Your task to perform on an android device: Show the shopping cart on amazon. Search for amazon basics triple a on amazon, select the first entry, and add it to the cart. Image 0: 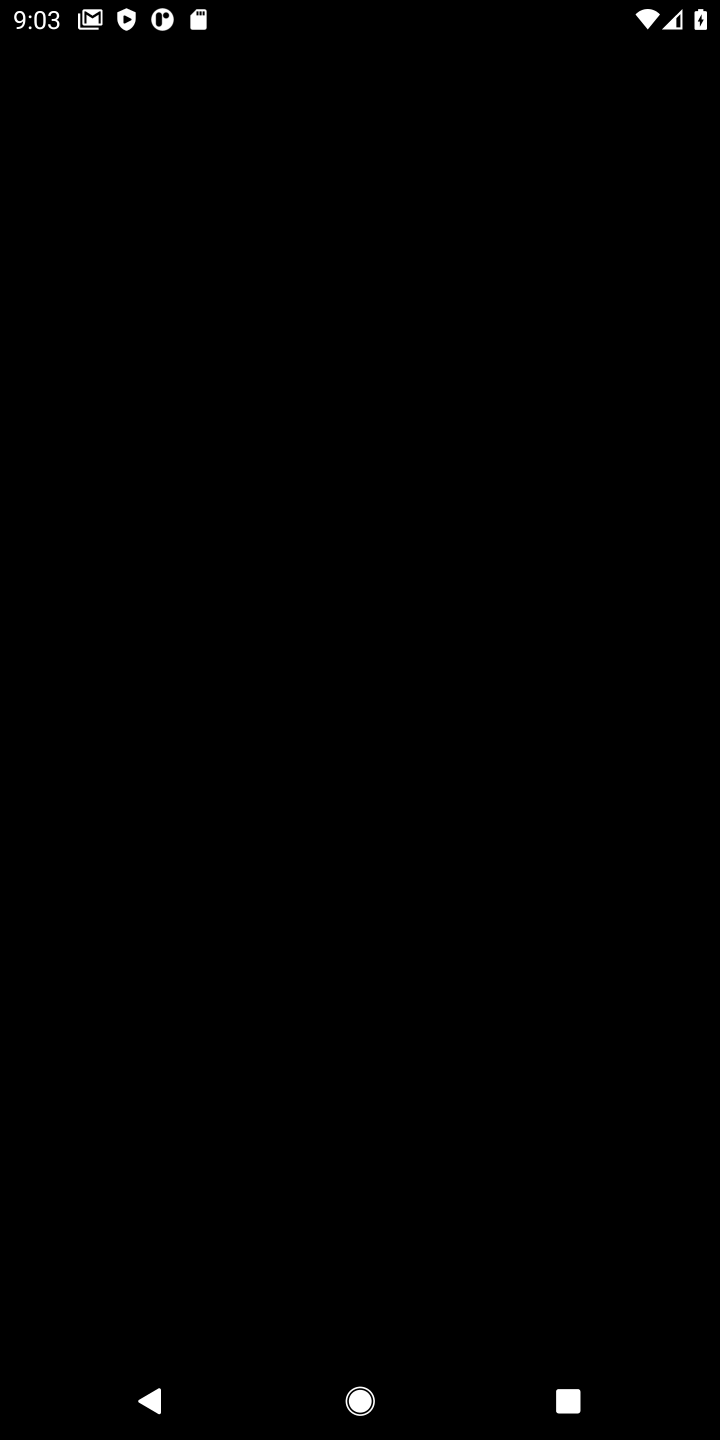
Step 0: press home button
Your task to perform on an android device: Show the shopping cart on amazon. Search for amazon basics triple a on amazon, select the first entry, and add it to the cart. Image 1: 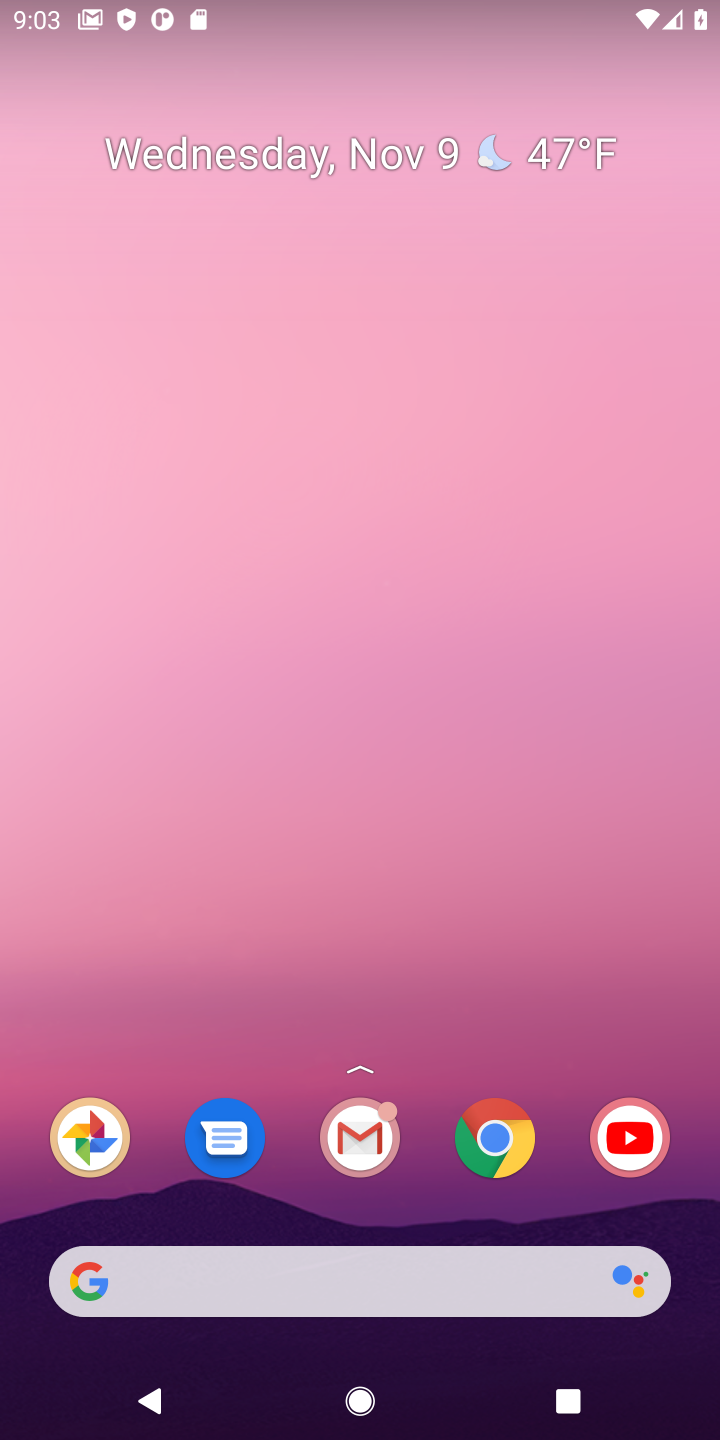
Step 1: drag from (427, 1219) to (374, 99)
Your task to perform on an android device: Show the shopping cart on amazon. Search for amazon basics triple a on amazon, select the first entry, and add it to the cart. Image 2: 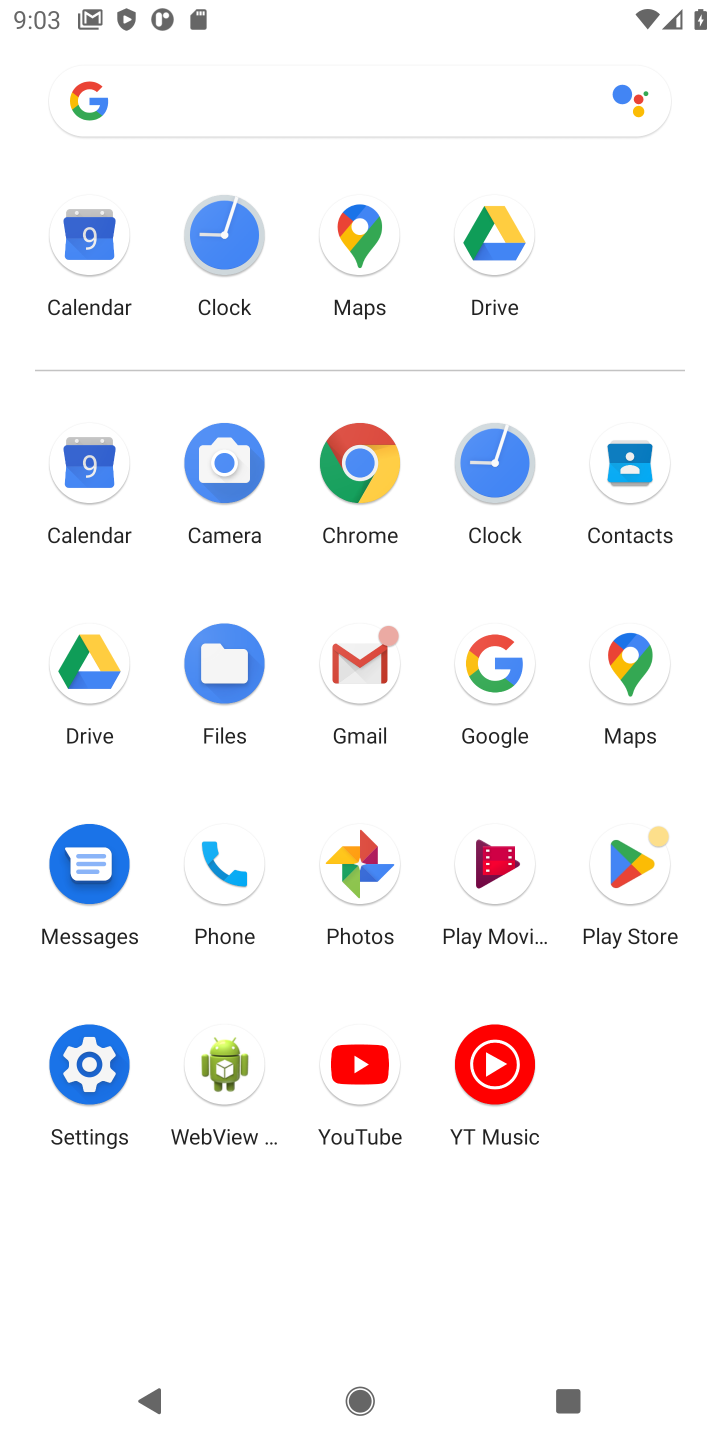
Step 2: click (356, 469)
Your task to perform on an android device: Show the shopping cart on amazon. Search for amazon basics triple a on amazon, select the first entry, and add it to the cart. Image 3: 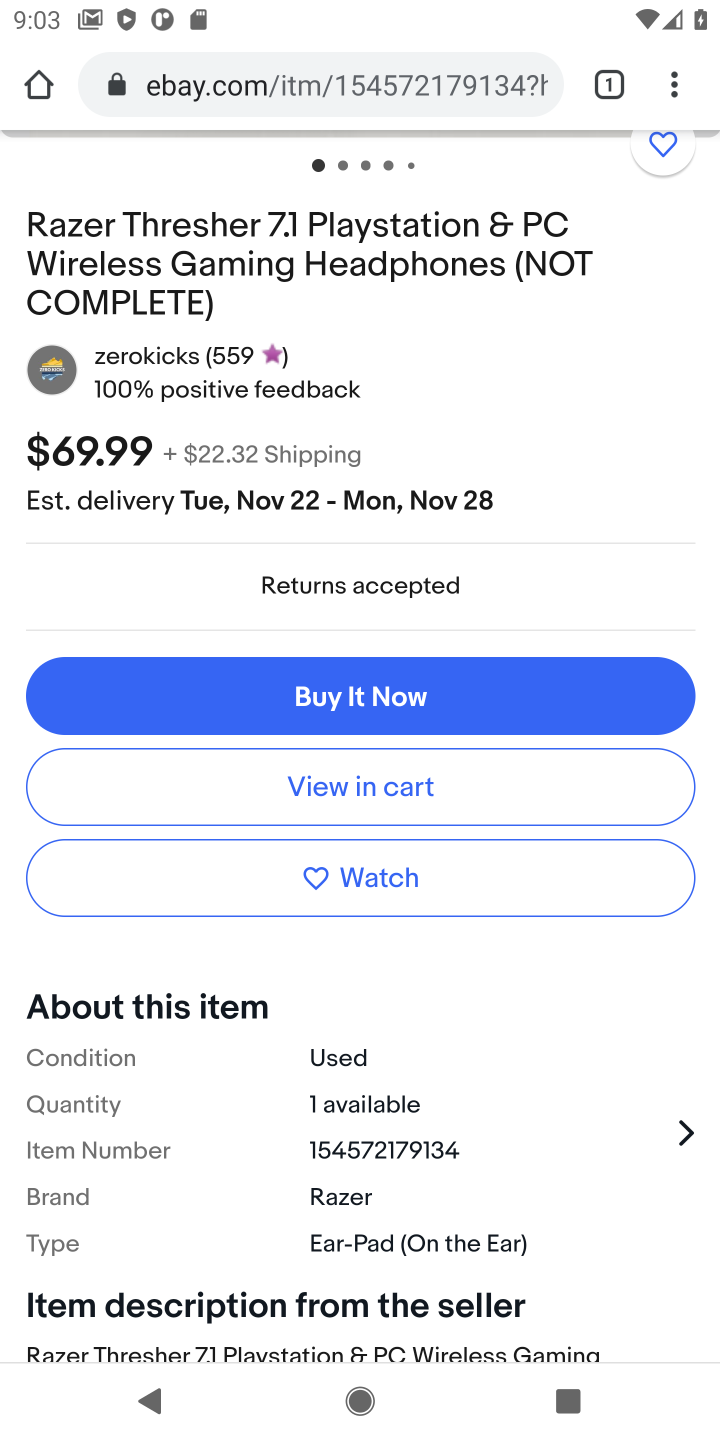
Step 3: click (329, 94)
Your task to perform on an android device: Show the shopping cart on amazon. Search for amazon basics triple a on amazon, select the first entry, and add it to the cart. Image 4: 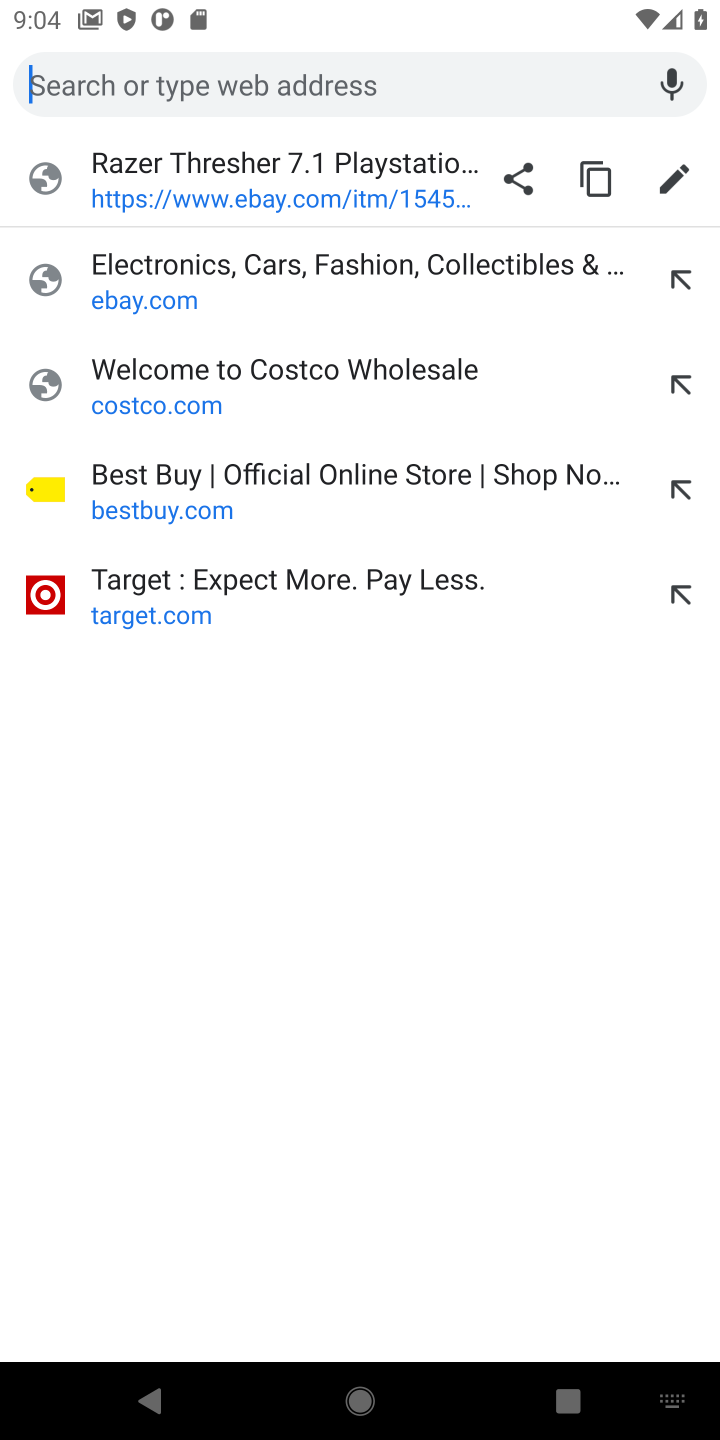
Step 4: type "amazon.com"
Your task to perform on an android device: Show the shopping cart on amazon. Search for amazon basics triple a on amazon, select the first entry, and add it to the cart. Image 5: 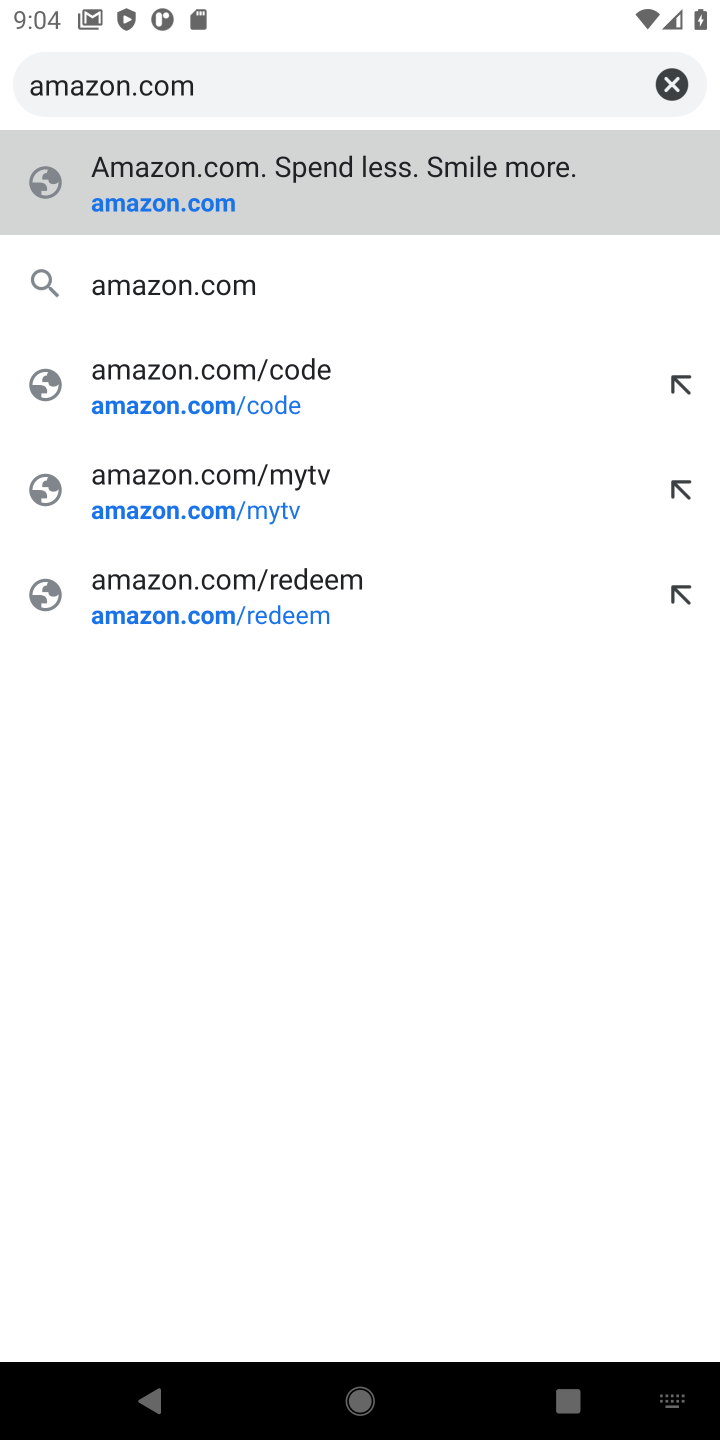
Step 5: press enter
Your task to perform on an android device: Show the shopping cart on amazon. Search for amazon basics triple a on amazon, select the first entry, and add it to the cart. Image 6: 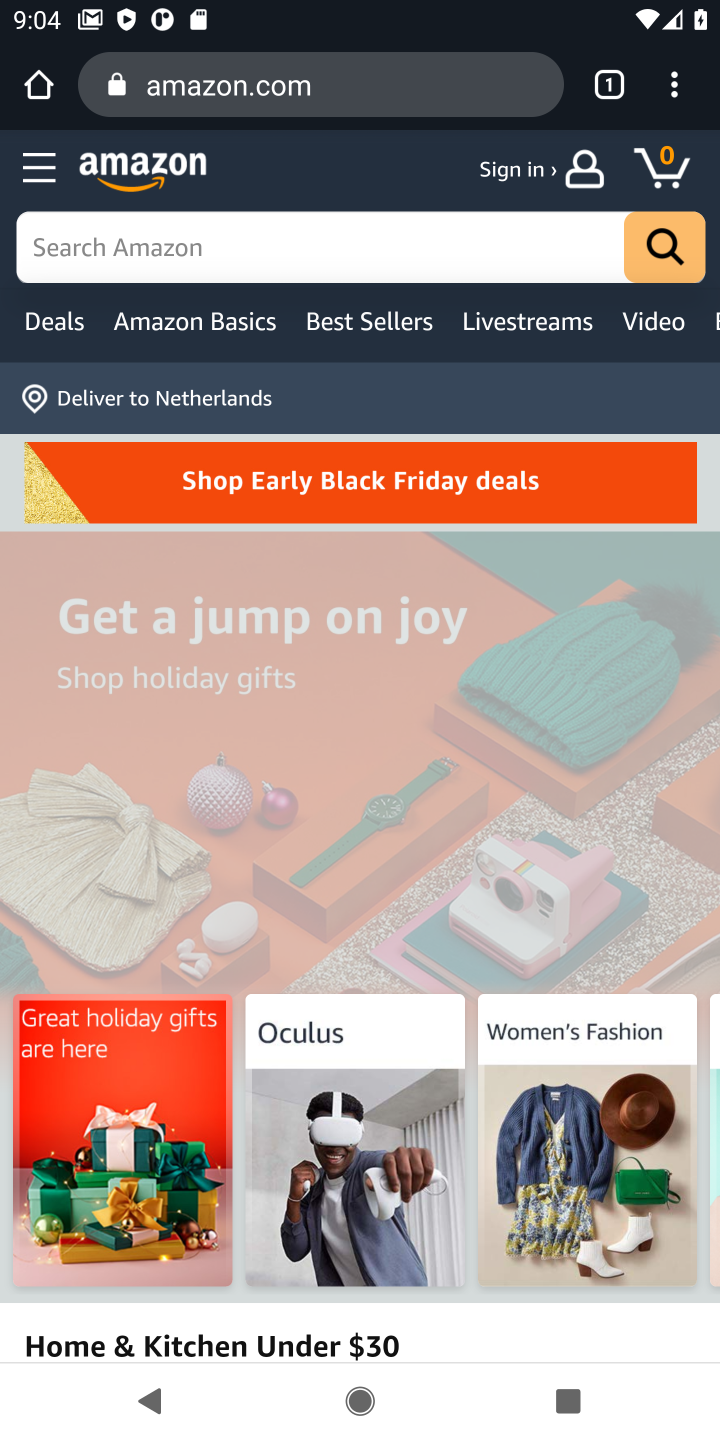
Step 6: click (668, 164)
Your task to perform on an android device: Show the shopping cart on amazon. Search for amazon basics triple a on amazon, select the first entry, and add it to the cart. Image 7: 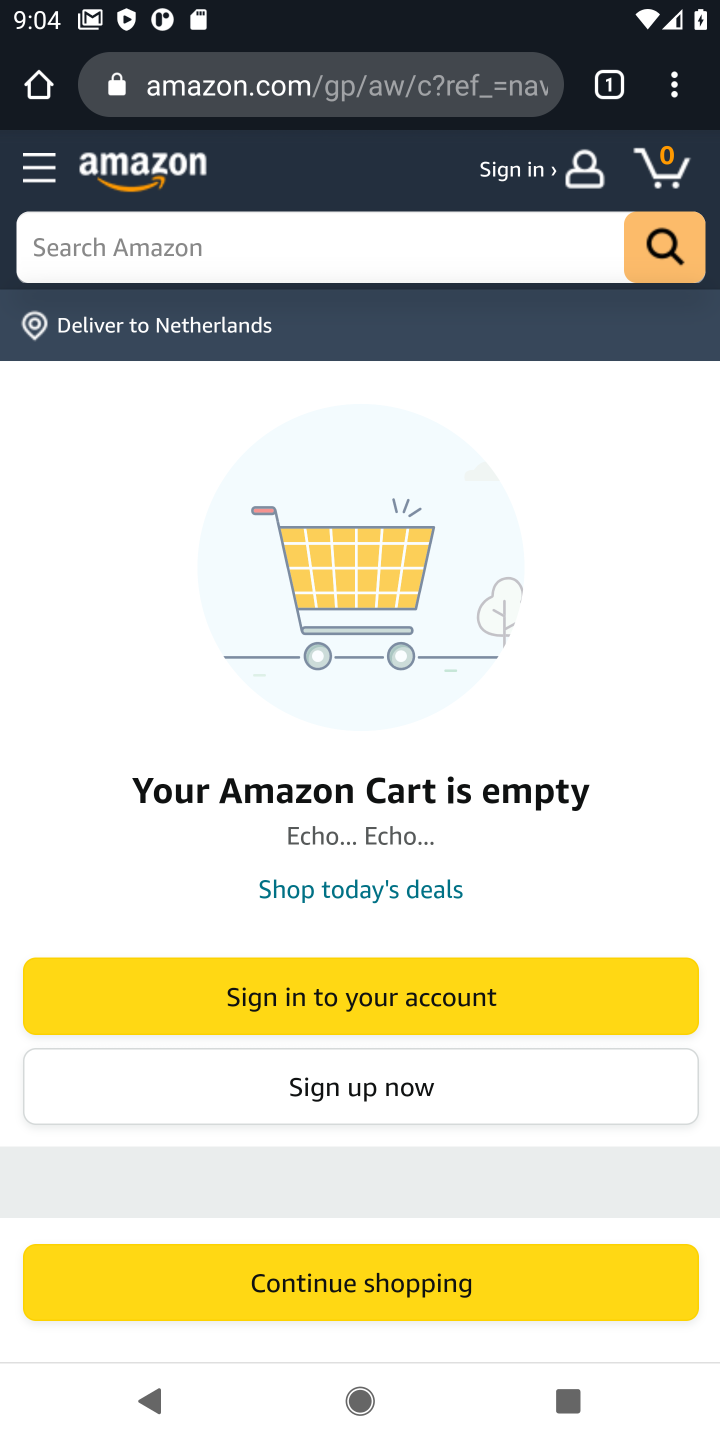
Step 7: click (250, 238)
Your task to perform on an android device: Show the shopping cart on amazon. Search for amazon basics triple a on amazon, select the first entry, and add it to the cart. Image 8: 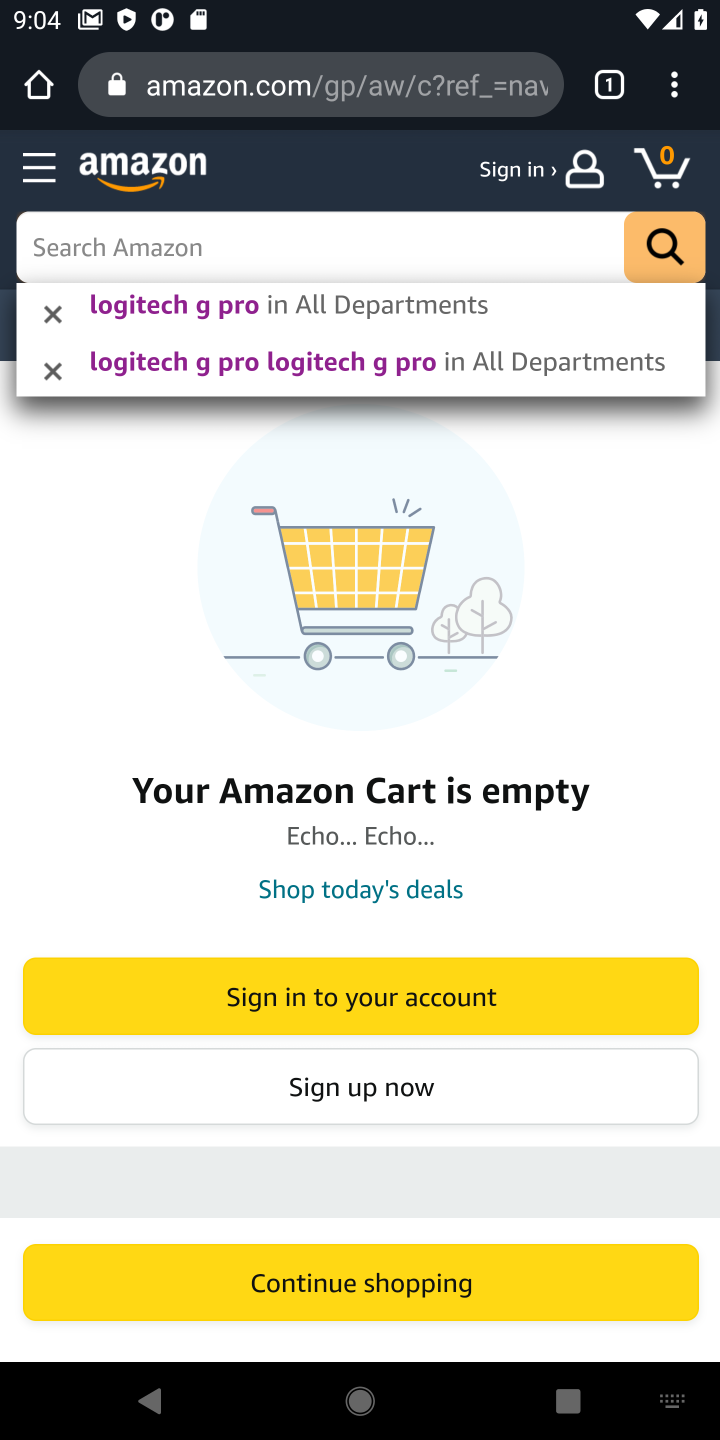
Step 8: type "amazon basics triple a"
Your task to perform on an android device: Show the shopping cart on amazon. Search for amazon basics triple a on amazon, select the first entry, and add it to the cart. Image 9: 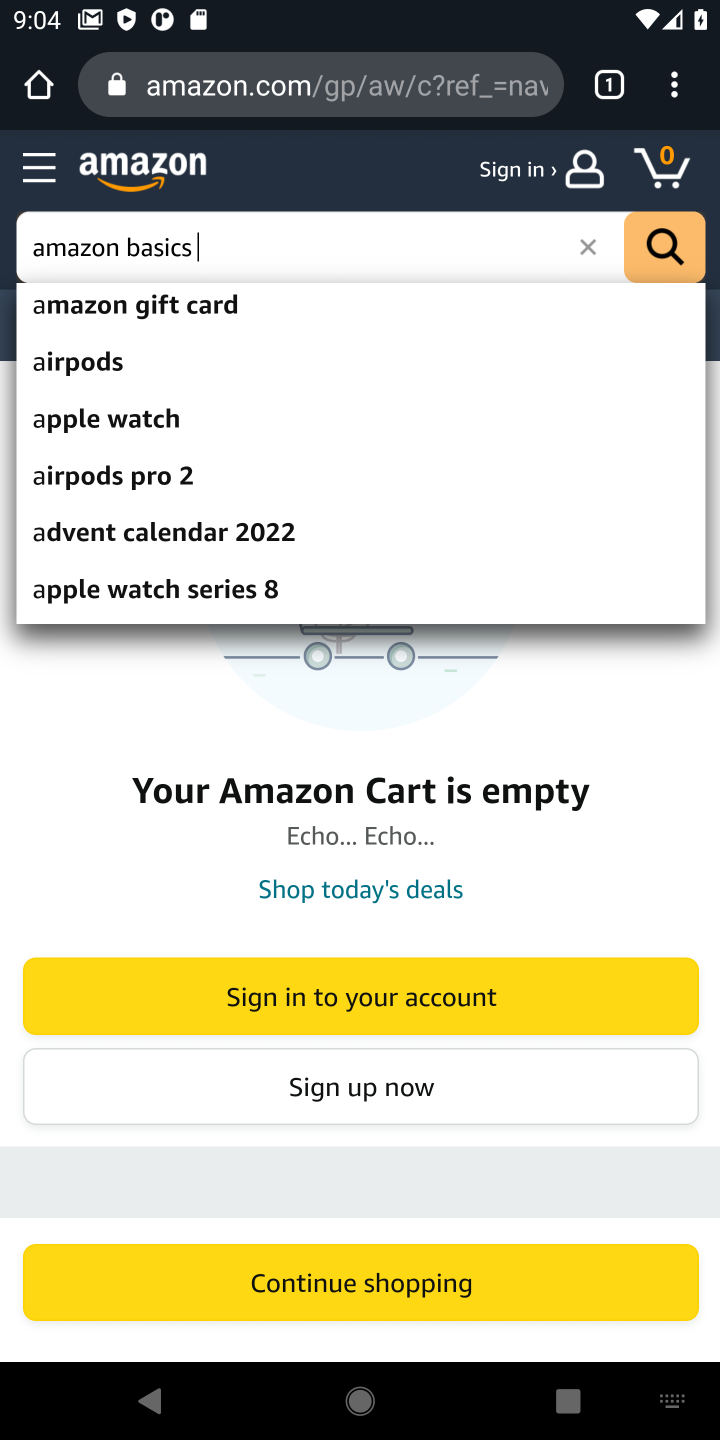
Step 9: press enter
Your task to perform on an android device: Show the shopping cart on amazon. Search for amazon basics triple a on amazon, select the first entry, and add it to the cart. Image 10: 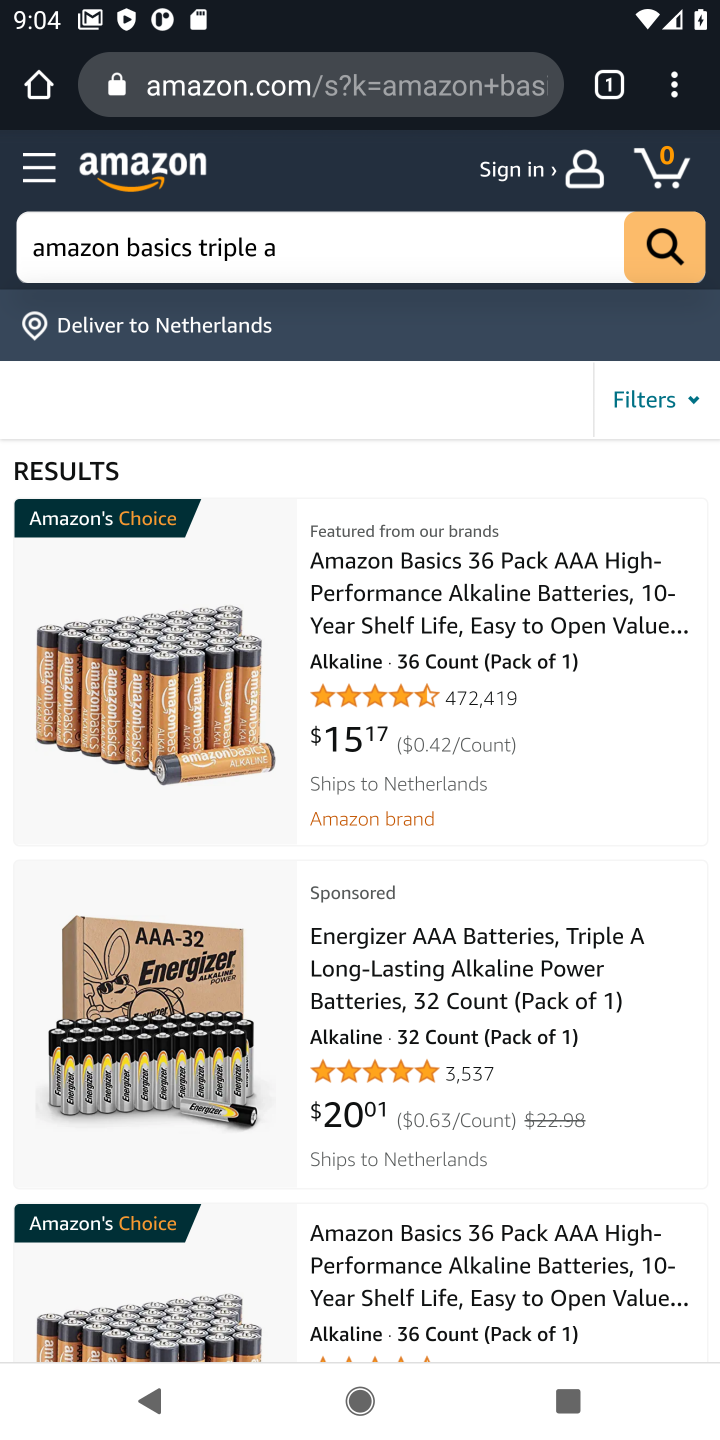
Step 10: drag from (332, 1250) to (337, 780)
Your task to perform on an android device: Show the shopping cart on amazon. Search for amazon basics triple a on amazon, select the first entry, and add it to the cart. Image 11: 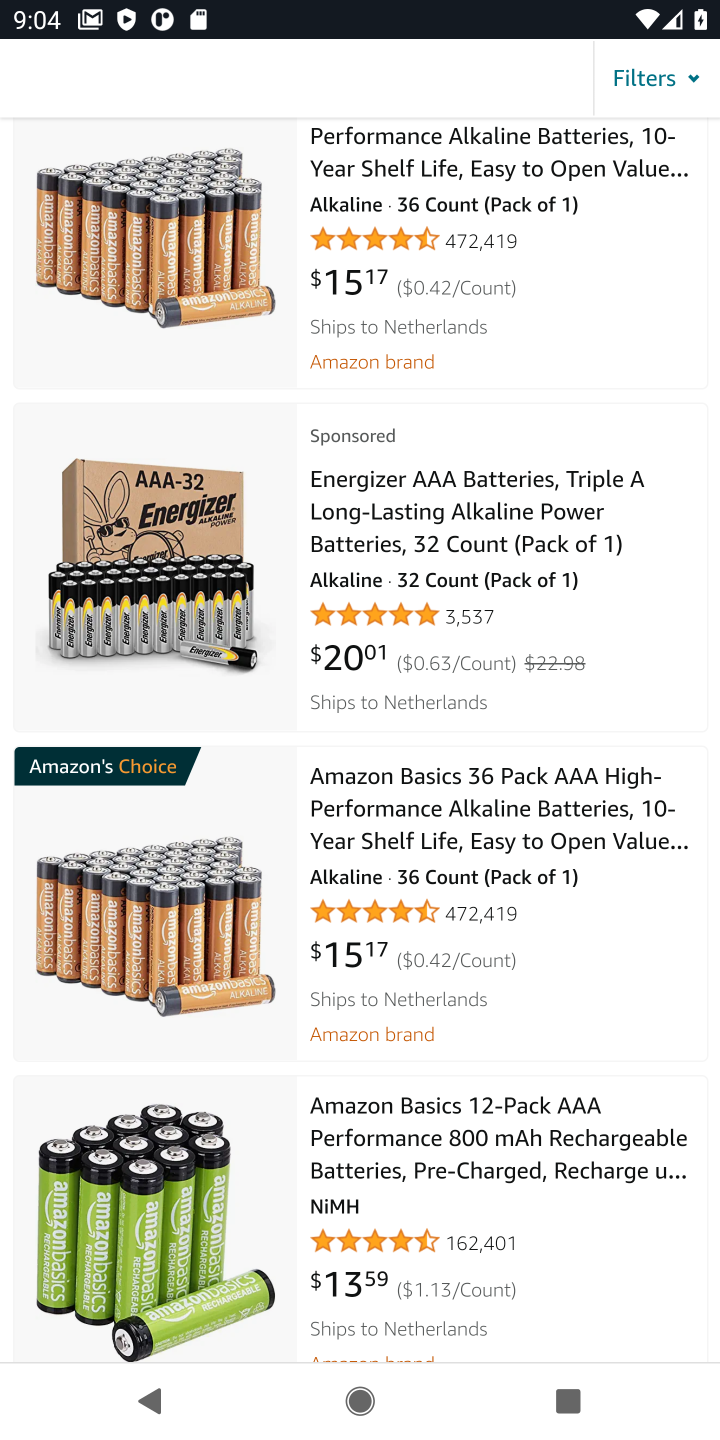
Step 11: click (383, 832)
Your task to perform on an android device: Show the shopping cart on amazon. Search for amazon basics triple a on amazon, select the first entry, and add it to the cart. Image 12: 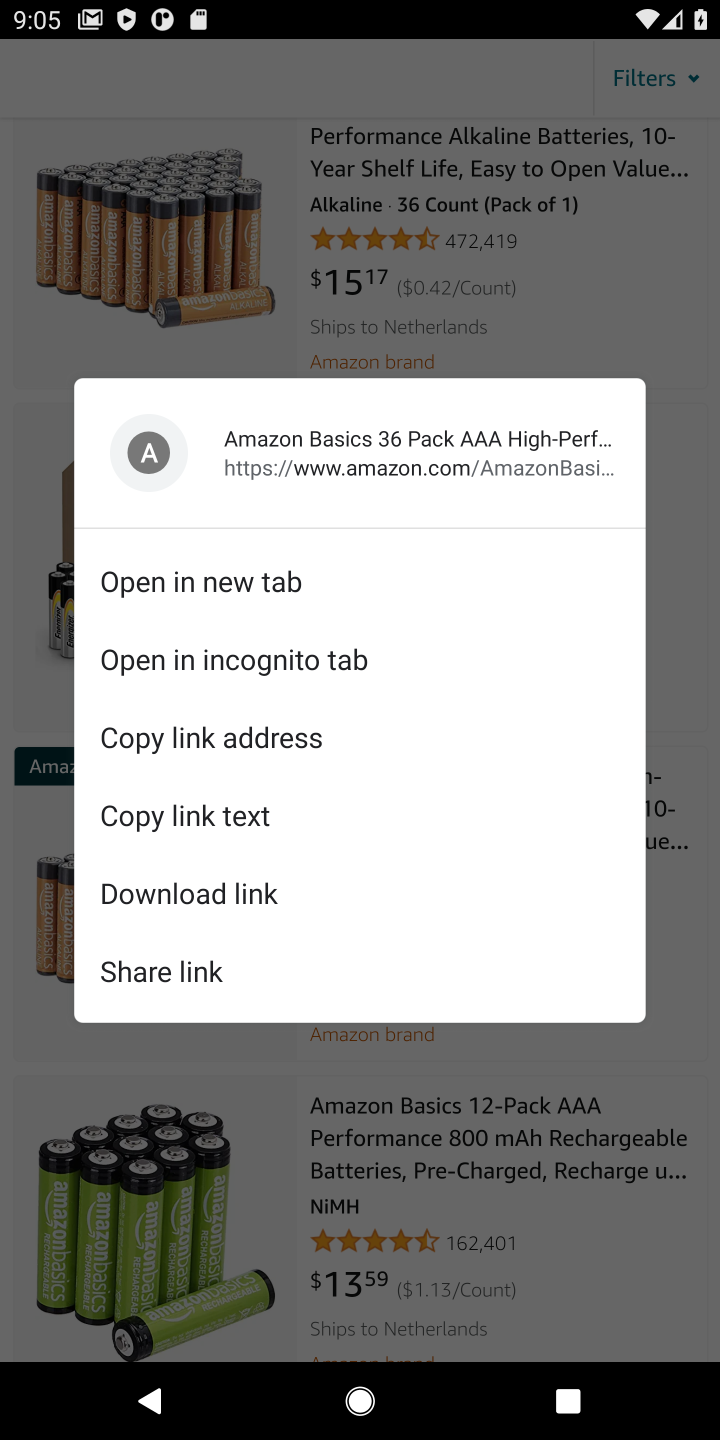
Step 12: click (33, 880)
Your task to perform on an android device: Show the shopping cart on amazon. Search for amazon basics triple a on amazon, select the first entry, and add it to the cart. Image 13: 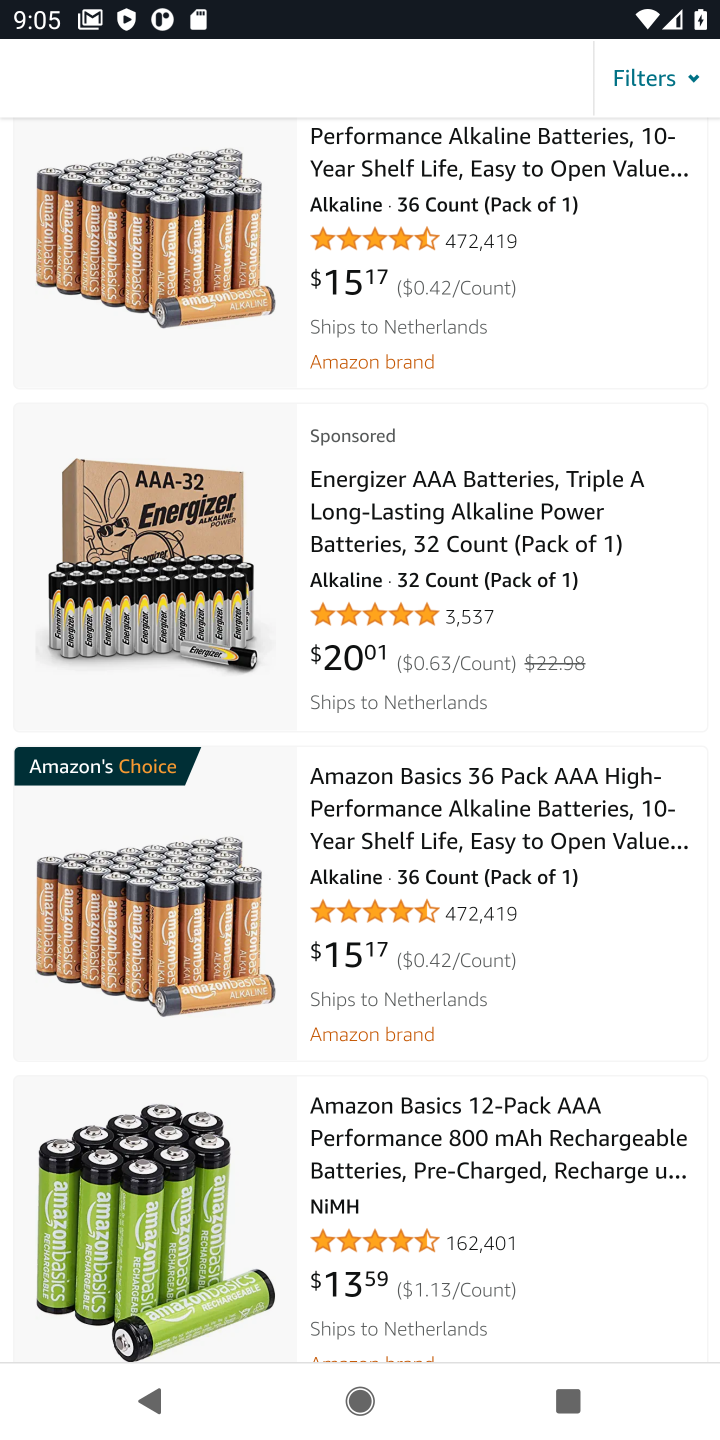
Step 13: click (344, 860)
Your task to perform on an android device: Show the shopping cart on amazon. Search for amazon basics triple a on amazon, select the first entry, and add it to the cart. Image 14: 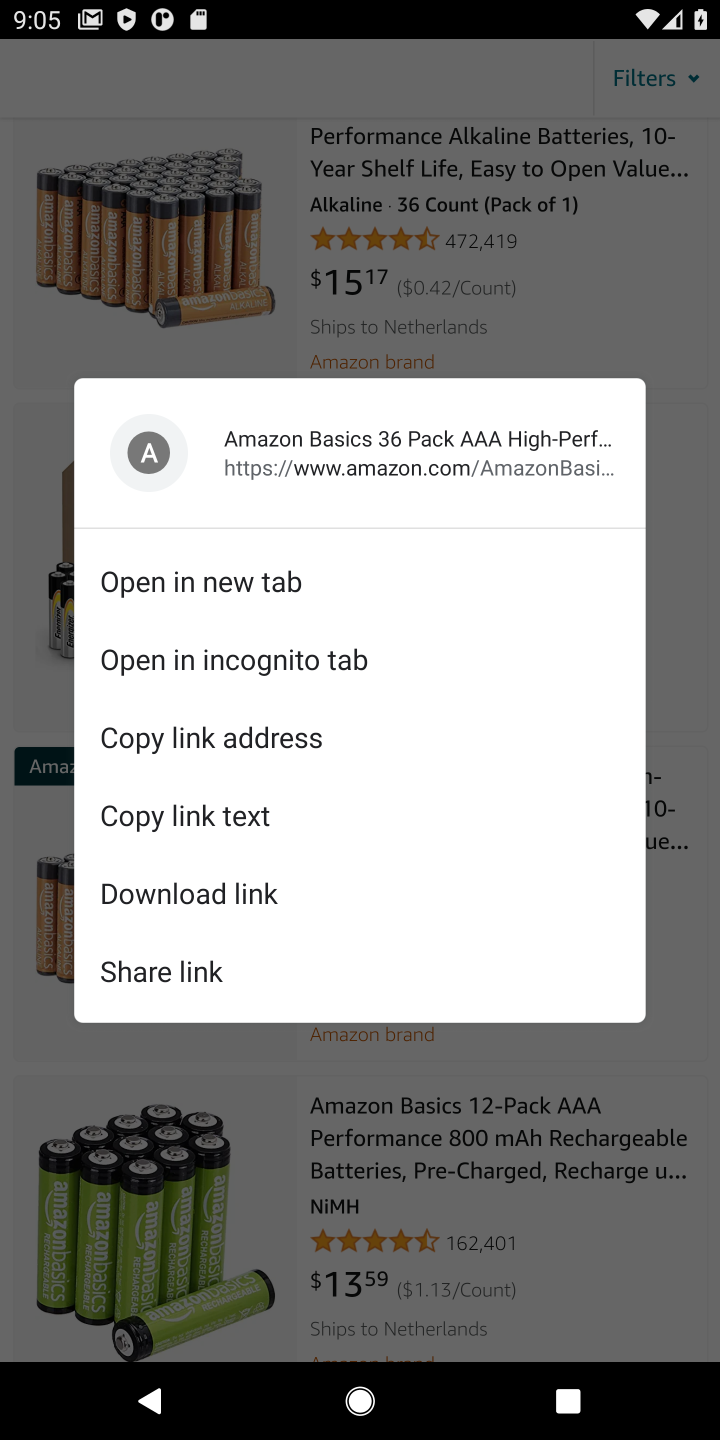
Step 14: click (43, 940)
Your task to perform on an android device: Show the shopping cart on amazon. Search for amazon basics triple a on amazon, select the first entry, and add it to the cart. Image 15: 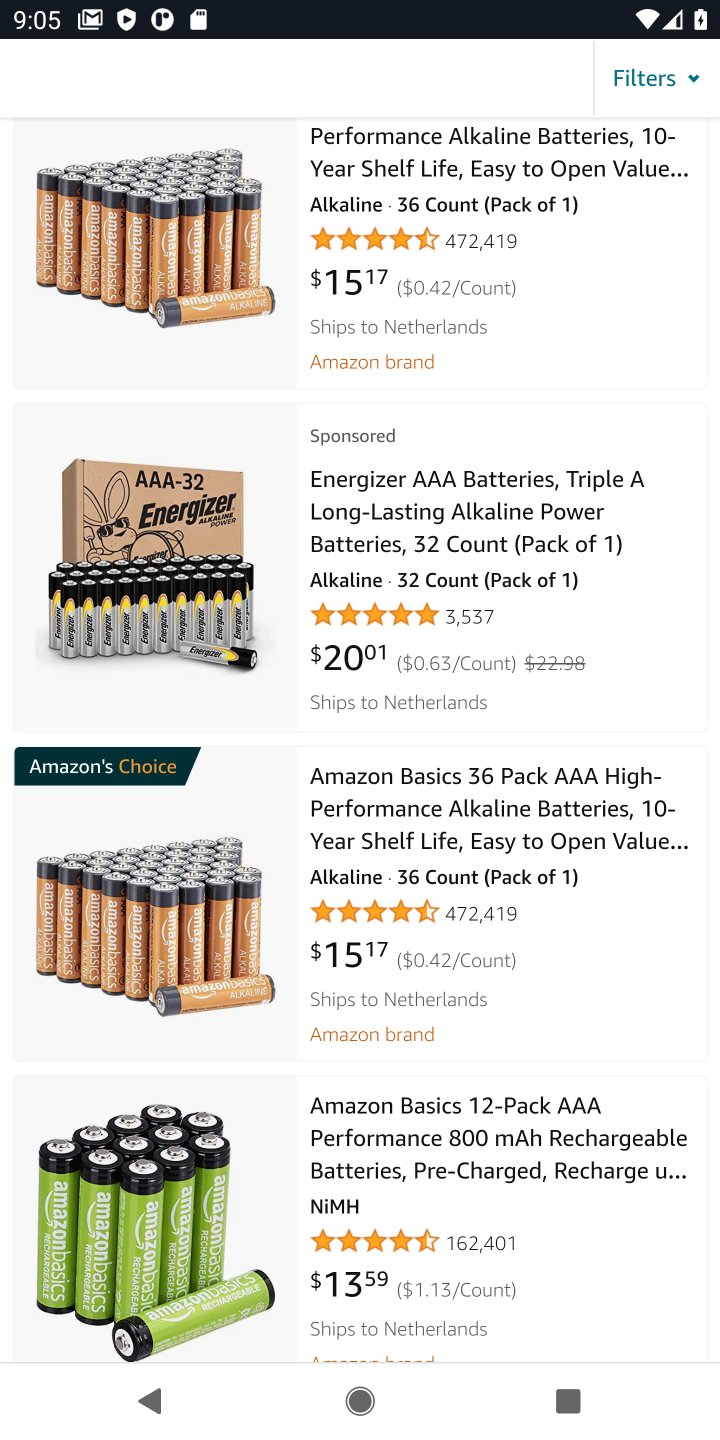
Step 15: click (587, 822)
Your task to perform on an android device: Show the shopping cart on amazon. Search for amazon basics triple a on amazon, select the first entry, and add it to the cart. Image 16: 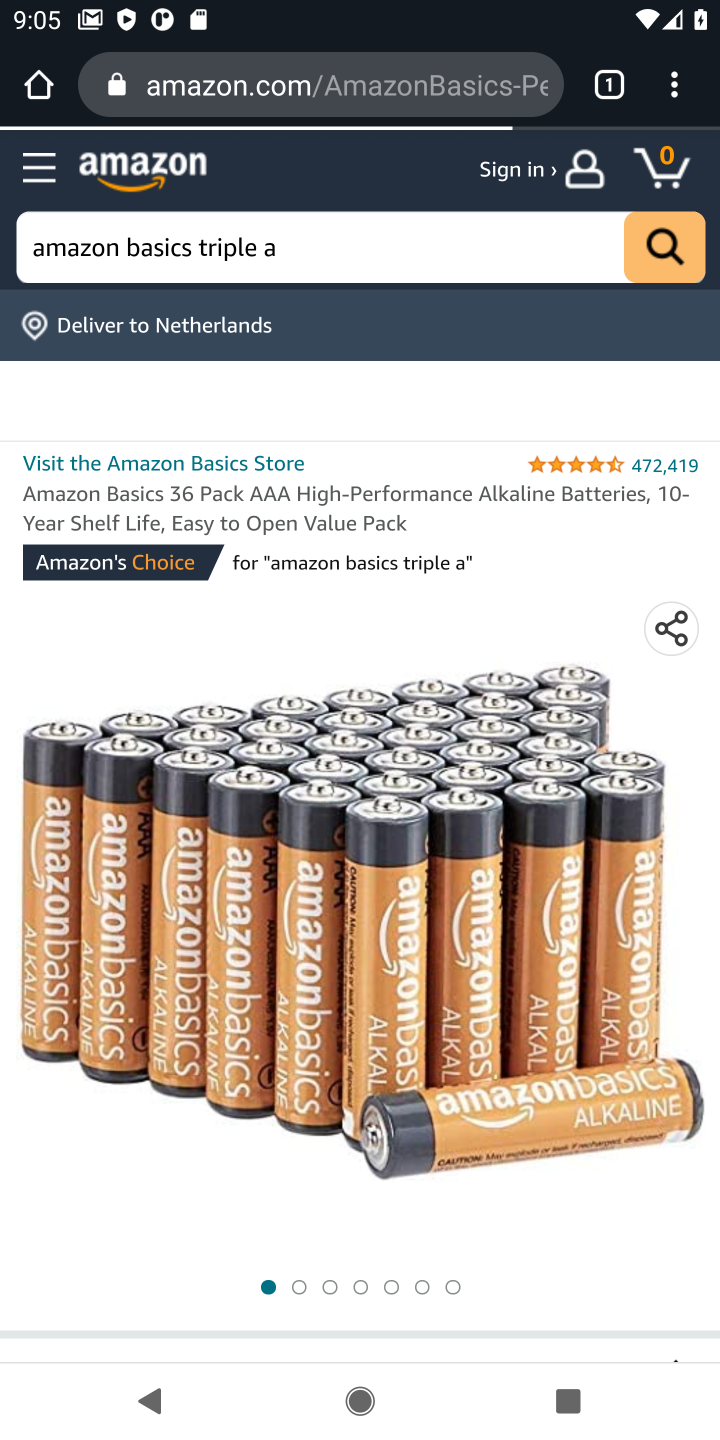
Step 16: drag from (392, 1053) to (451, 190)
Your task to perform on an android device: Show the shopping cart on amazon. Search for amazon basics triple a on amazon, select the first entry, and add it to the cart. Image 17: 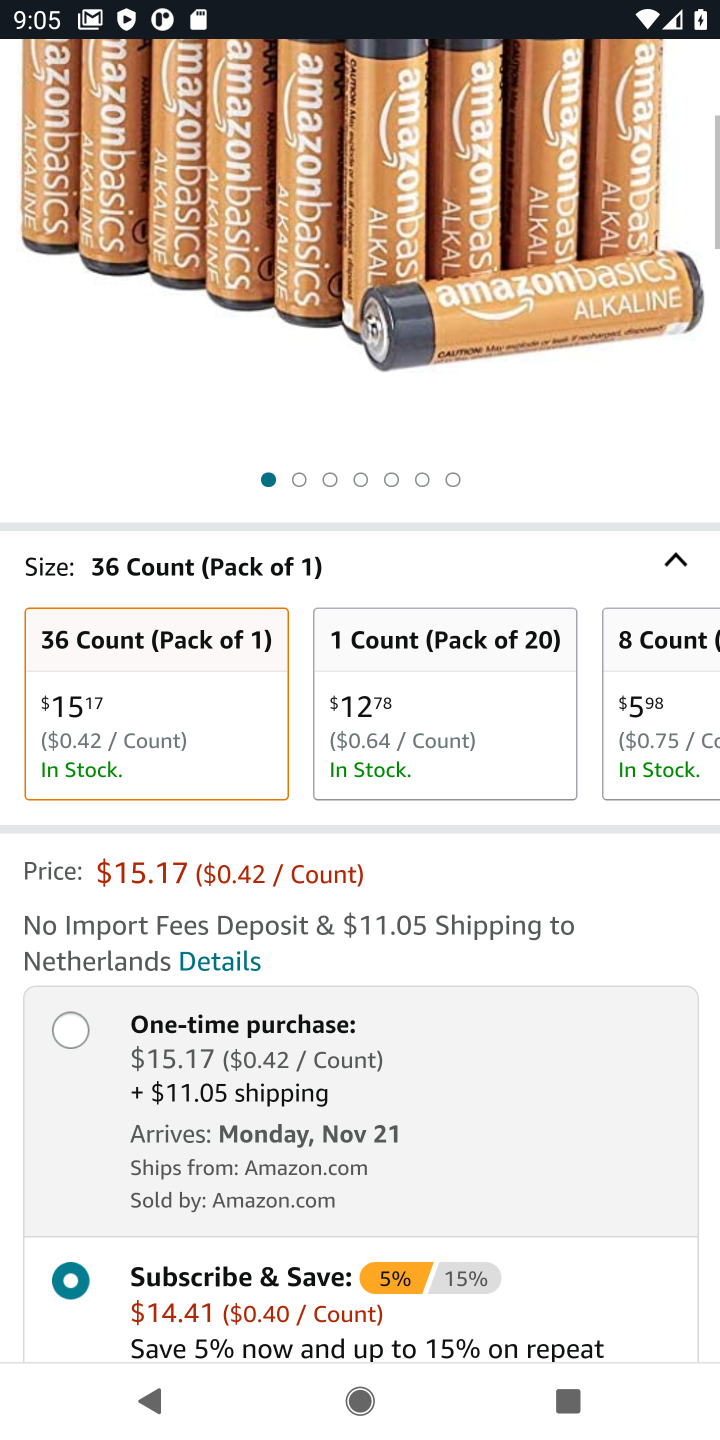
Step 17: drag from (410, 1096) to (420, 481)
Your task to perform on an android device: Show the shopping cart on amazon. Search for amazon basics triple a on amazon, select the first entry, and add it to the cart. Image 18: 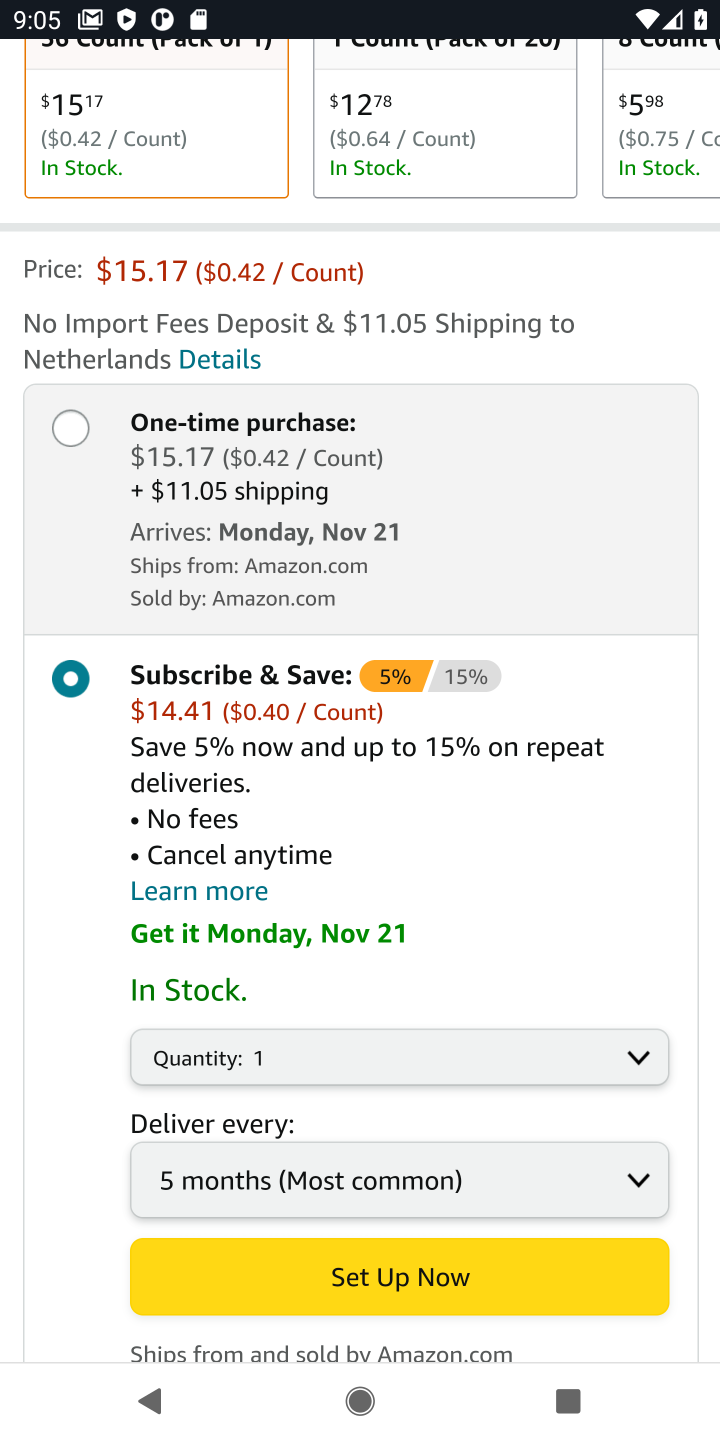
Step 18: click (254, 449)
Your task to perform on an android device: Show the shopping cart on amazon. Search for amazon basics triple a on amazon, select the first entry, and add it to the cart. Image 19: 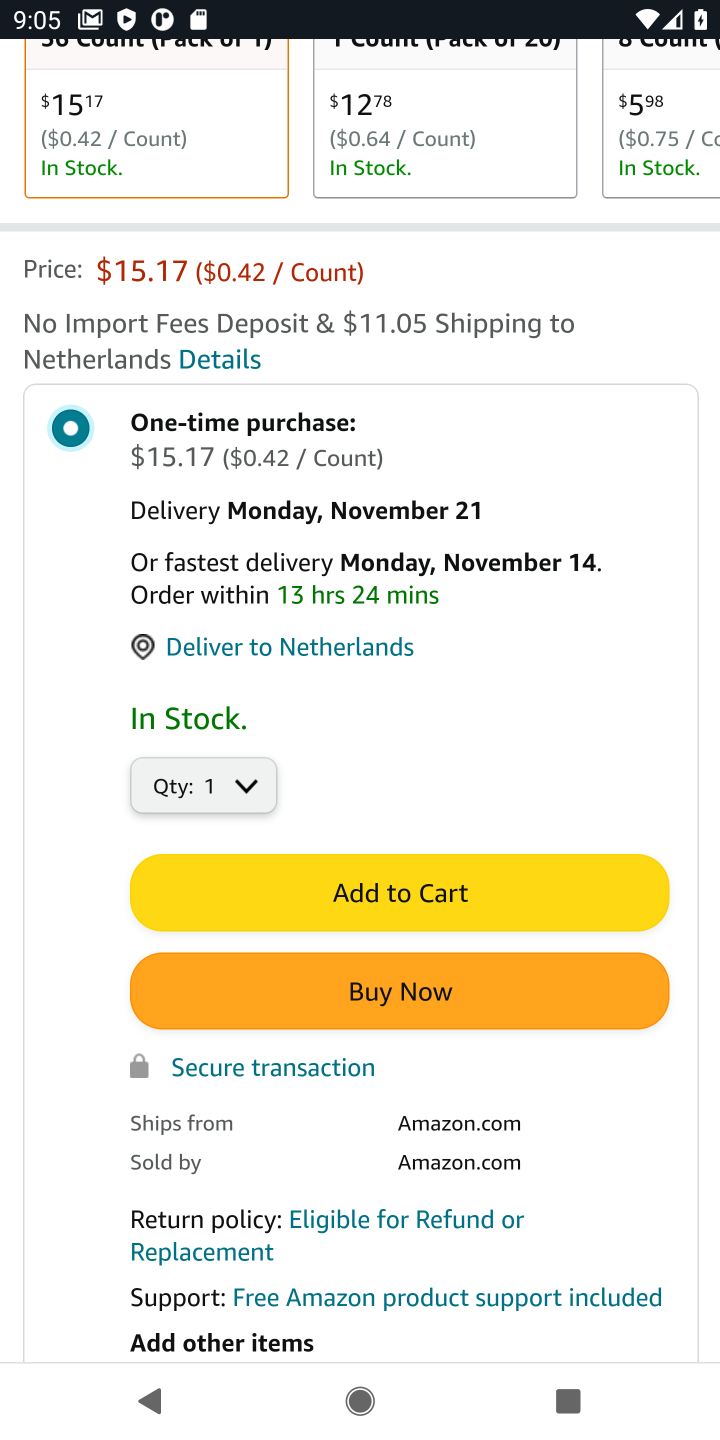
Step 19: click (388, 897)
Your task to perform on an android device: Show the shopping cart on amazon. Search for amazon basics triple a on amazon, select the first entry, and add it to the cart. Image 20: 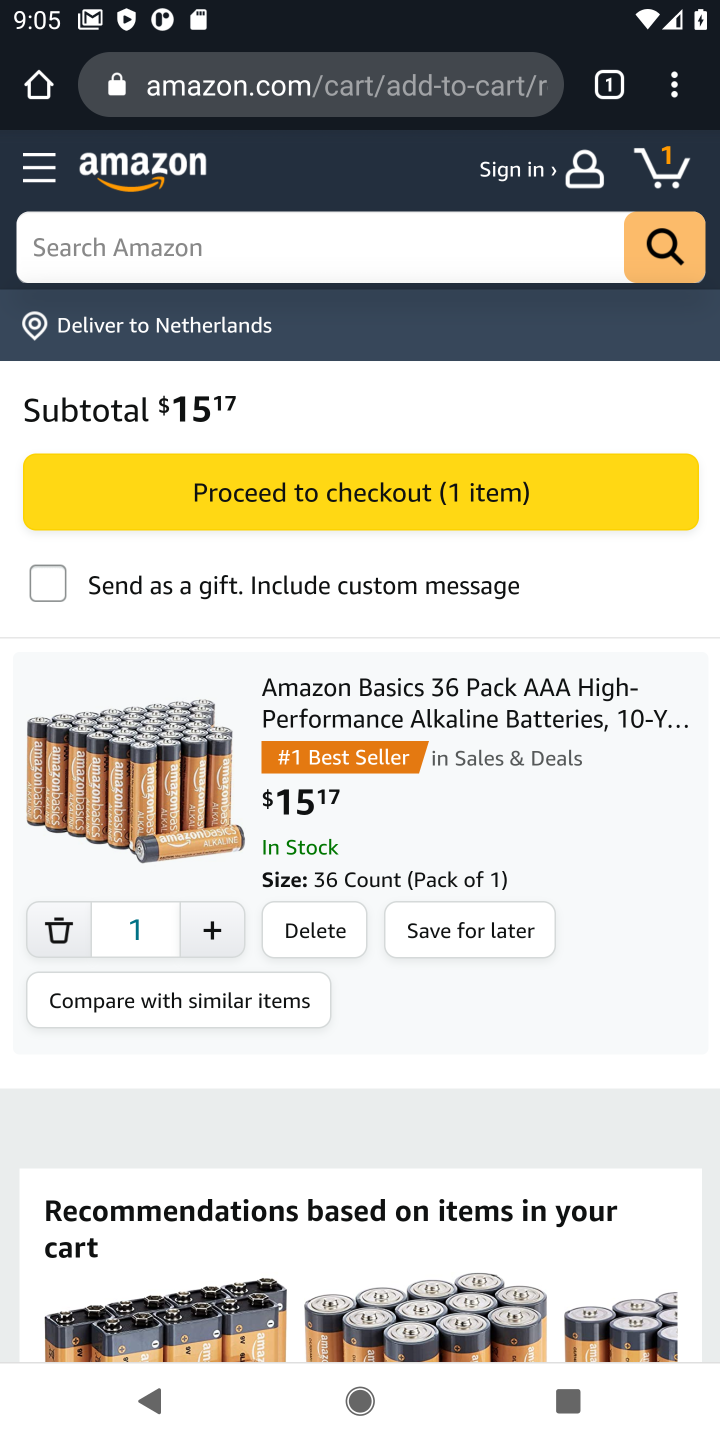
Step 20: task complete